Your task to perform on an android device: Add "usb-a" to the cart on walmart.com Image 0: 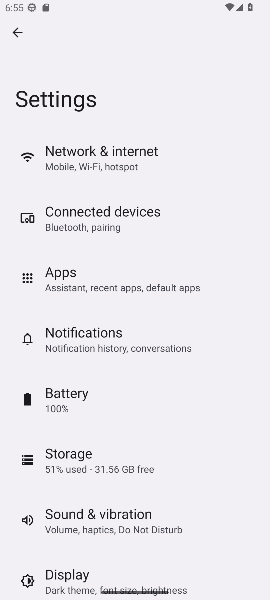
Step 0: press home button
Your task to perform on an android device: Add "usb-a" to the cart on walmart.com Image 1: 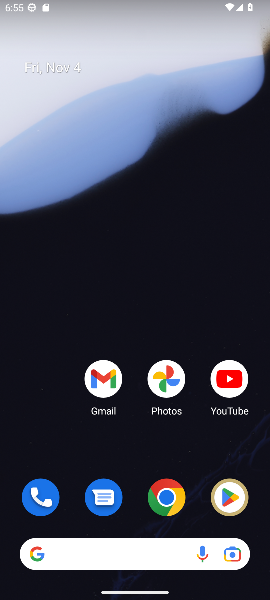
Step 1: click (176, 507)
Your task to perform on an android device: Add "usb-a" to the cart on walmart.com Image 2: 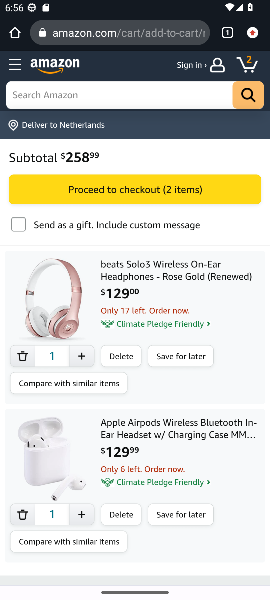
Step 2: click (85, 39)
Your task to perform on an android device: Add "usb-a" to the cart on walmart.com Image 3: 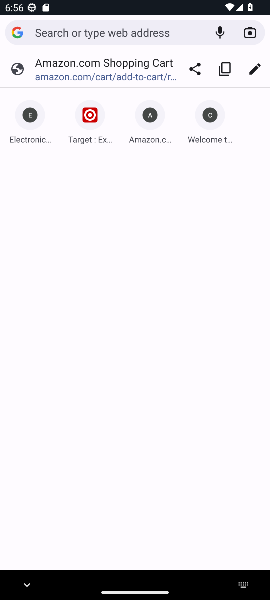
Step 3: type "walmart.com"
Your task to perform on an android device: Add "usb-a" to the cart on walmart.com Image 4: 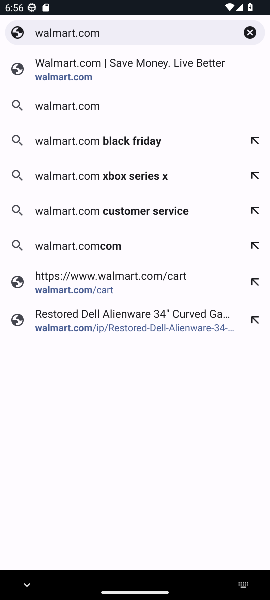
Step 4: click (73, 79)
Your task to perform on an android device: Add "usb-a" to the cart on walmart.com Image 5: 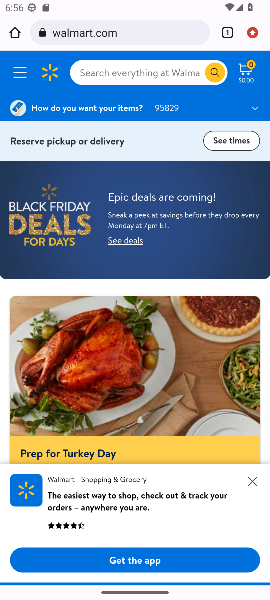
Step 5: click (149, 81)
Your task to perform on an android device: Add "usb-a" to the cart on walmart.com Image 6: 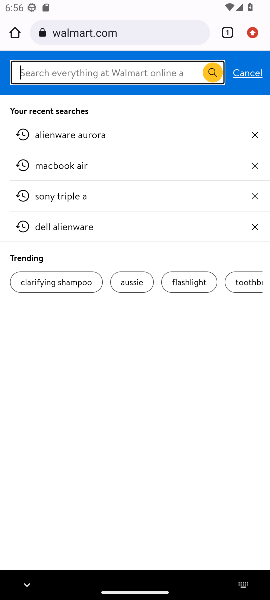
Step 6: type "usb-a"
Your task to perform on an android device: Add "usb-a" to the cart on walmart.com Image 7: 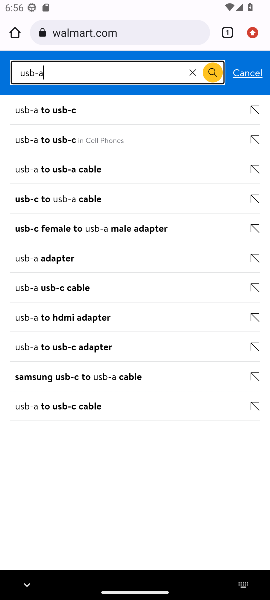
Step 7: click (215, 72)
Your task to perform on an android device: Add "usb-a" to the cart on walmart.com Image 8: 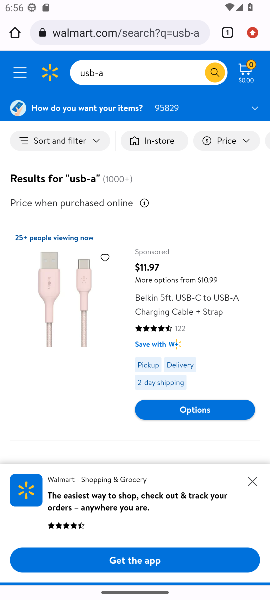
Step 8: drag from (79, 337) to (84, 197)
Your task to perform on an android device: Add "usb-a" to the cart on walmart.com Image 9: 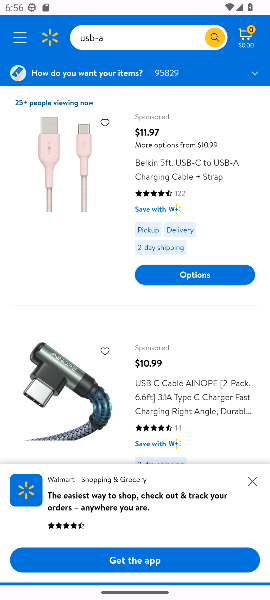
Step 9: drag from (99, 389) to (102, 266)
Your task to perform on an android device: Add "usb-a" to the cart on walmart.com Image 10: 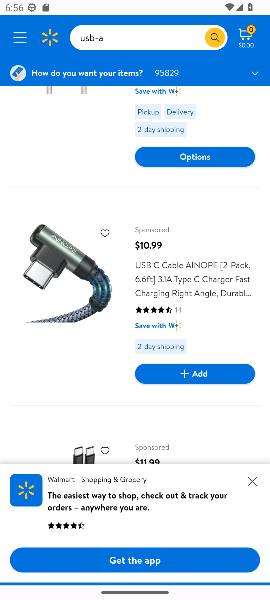
Step 10: drag from (65, 408) to (71, 242)
Your task to perform on an android device: Add "usb-a" to the cart on walmart.com Image 11: 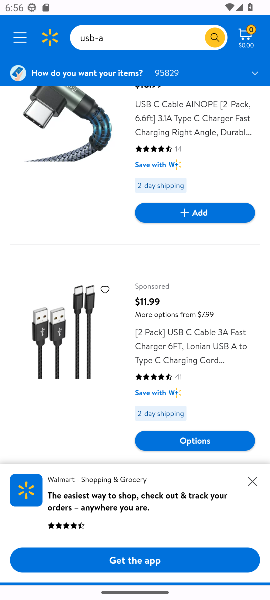
Step 11: click (68, 345)
Your task to perform on an android device: Add "usb-a" to the cart on walmart.com Image 12: 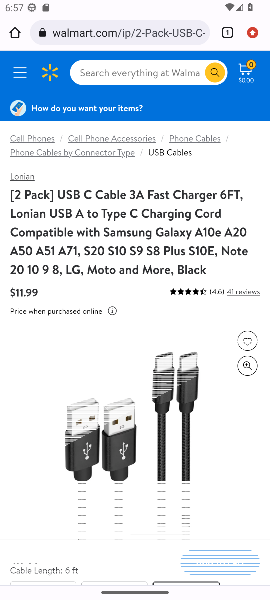
Step 12: drag from (141, 459) to (136, 241)
Your task to perform on an android device: Add "usb-a" to the cart on walmart.com Image 13: 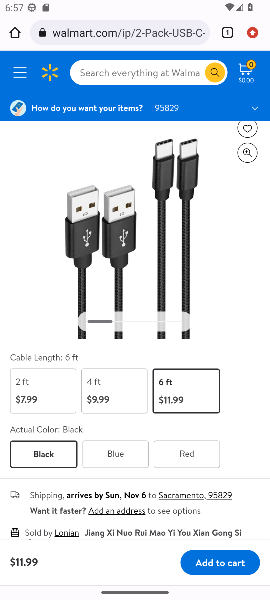
Step 13: click (234, 565)
Your task to perform on an android device: Add "usb-a" to the cart on walmart.com Image 14: 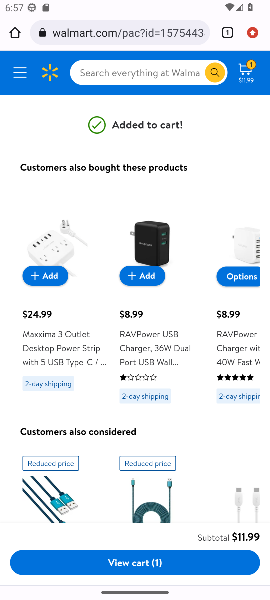
Step 14: task complete